Your task to perform on an android device: toggle wifi Image 0: 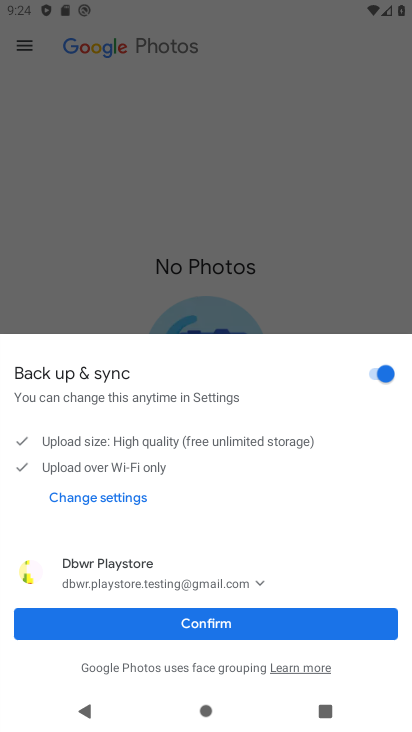
Step 0: drag from (275, 14) to (303, 717)
Your task to perform on an android device: toggle wifi Image 1: 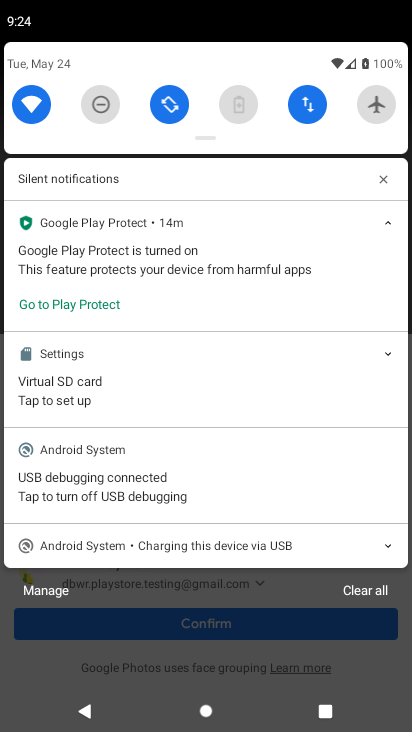
Step 1: click (33, 95)
Your task to perform on an android device: toggle wifi Image 2: 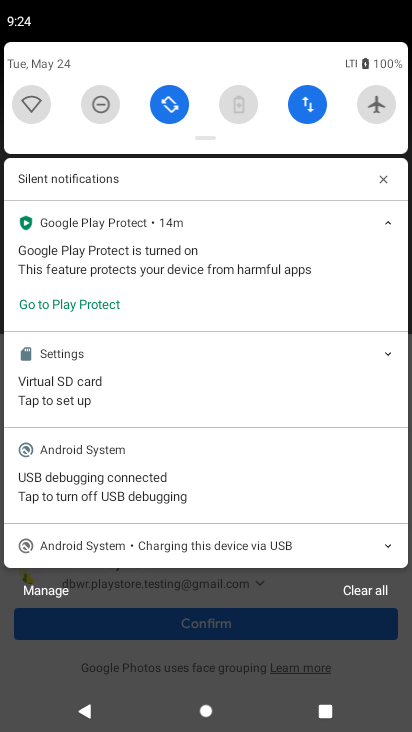
Step 2: click (33, 95)
Your task to perform on an android device: toggle wifi Image 3: 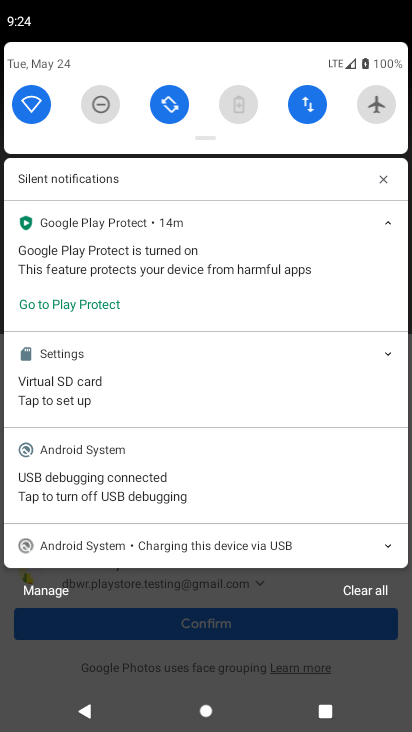
Step 3: click (33, 95)
Your task to perform on an android device: toggle wifi Image 4: 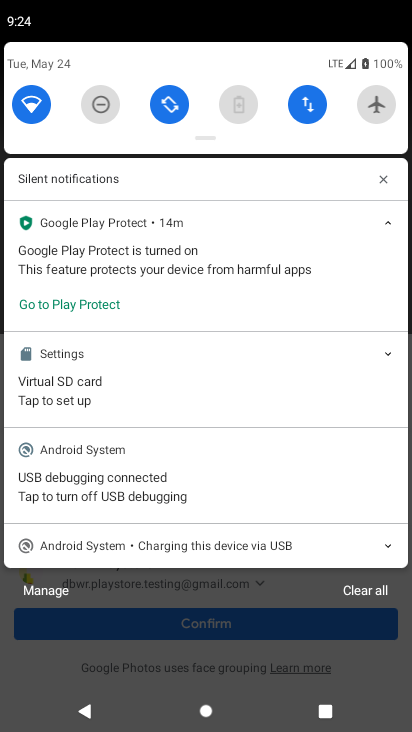
Step 4: click (33, 95)
Your task to perform on an android device: toggle wifi Image 5: 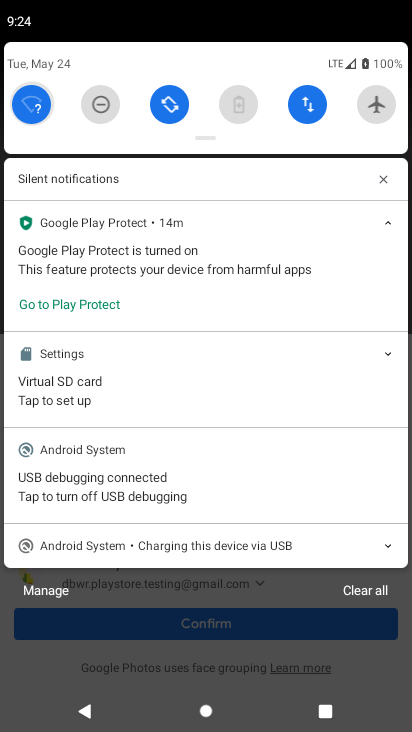
Step 5: click (33, 95)
Your task to perform on an android device: toggle wifi Image 6: 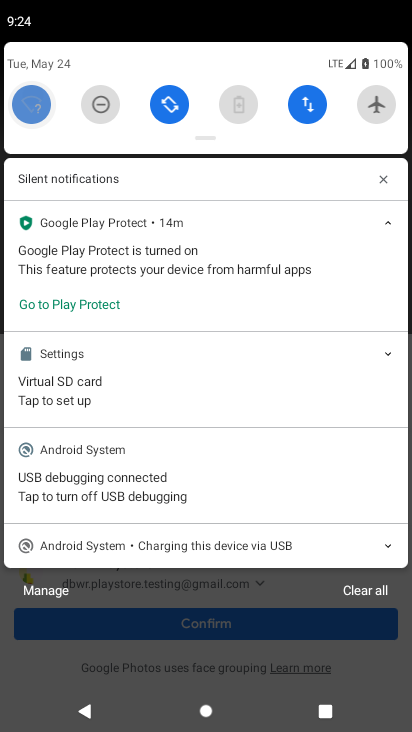
Step 6: click (33, 95)
Your task to perform on an android device: toggle wifi Image 7: 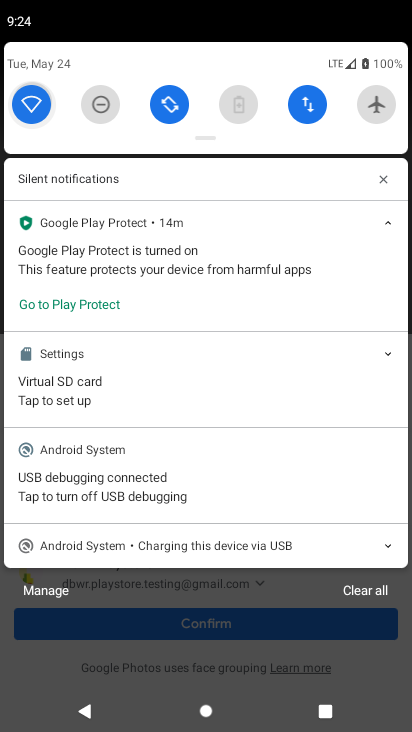
Step 7: click (33, 95)
Your task to perform on an android device: toggle wifi Image 8: 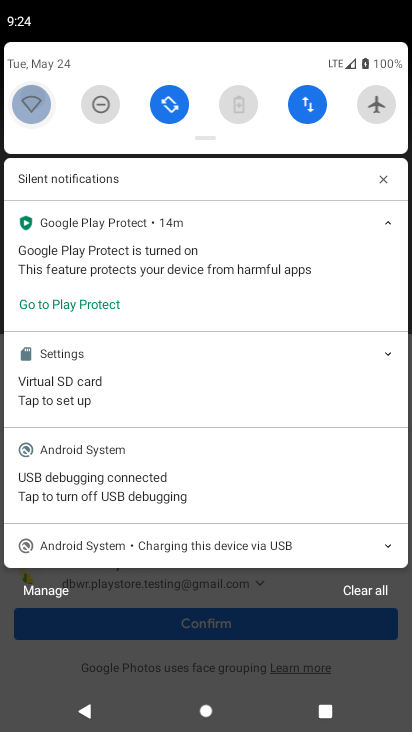
Step 8: click (33, 95)
Your task to perform on an android device: toggle wifi Image 9: 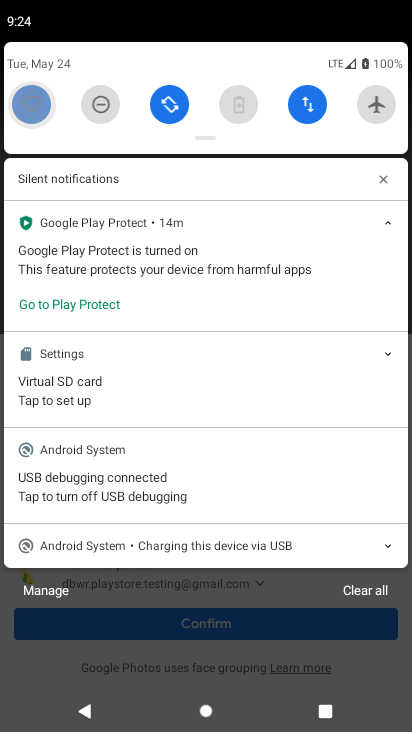
Step 9: click (33, 95)
Your task to perform on an android device: toggle wifi Image 10: 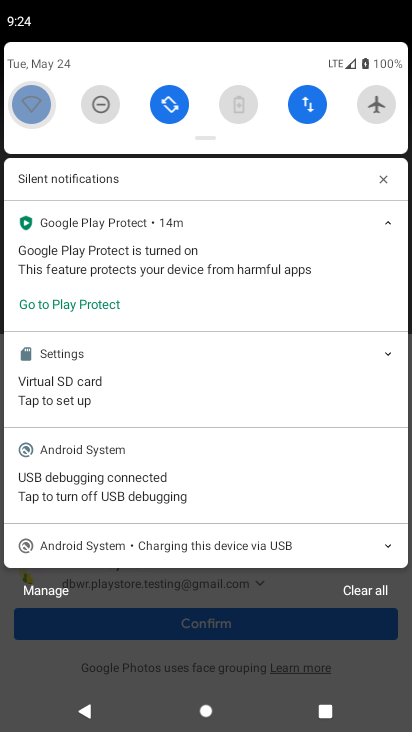
Step 10: click (33, 95)
Your task to perform on an android device: toggle wifi Image 11: 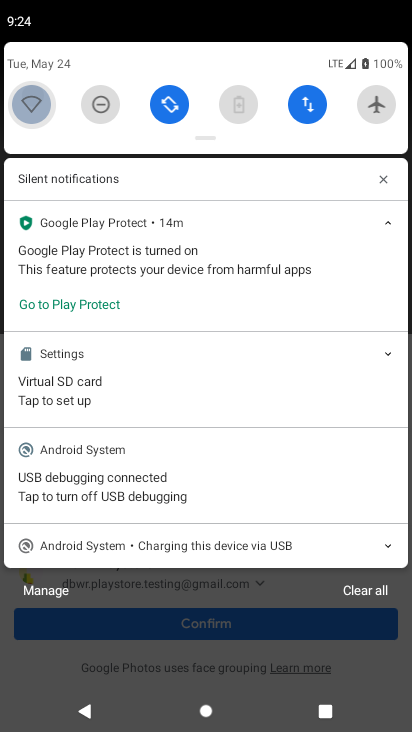
Step 11: click (33, 95)
Your task to perform on an android device: toggle wifi Image 12: 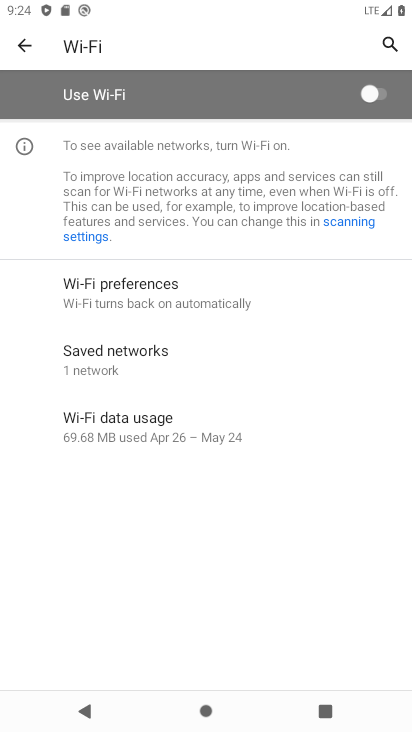
Step 12: click (393, 95)
Your task to perform on an android device: toggle wifi Image 13: 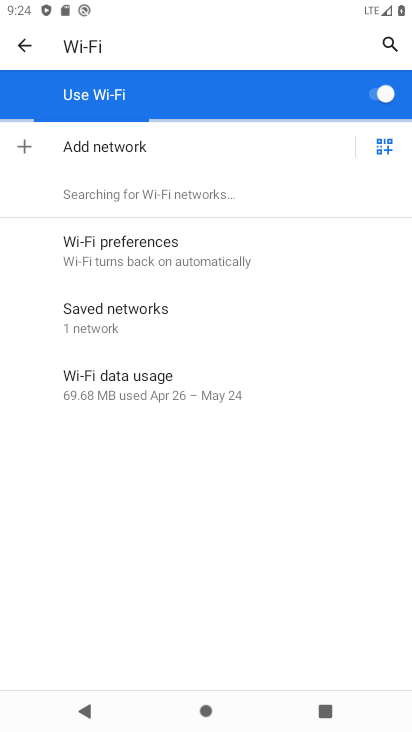
Step 13: task complete